Your task to perform on an android device: set default search engine in the chrome app Image 0: 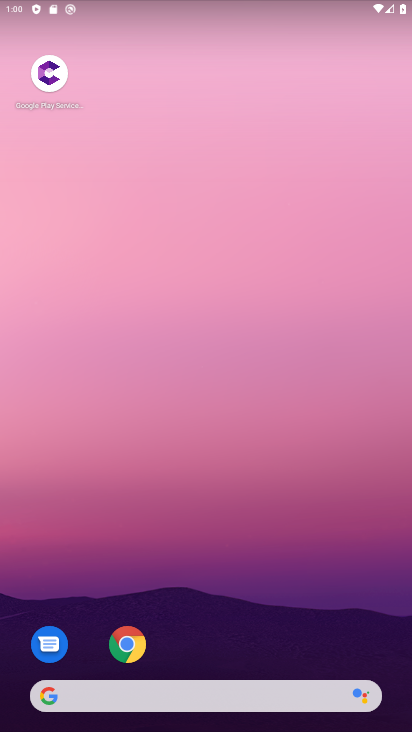
Step 0: click (128, 654)
Your task to perform on an android device: set default search engine in the chrome app Image 1: 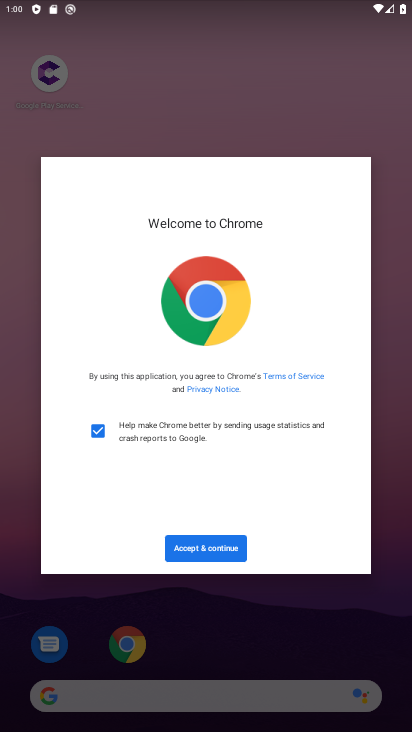
Step 1: click (240, 558)
Your task to perform on an android device: set default search engine in the chrome app Image 2: 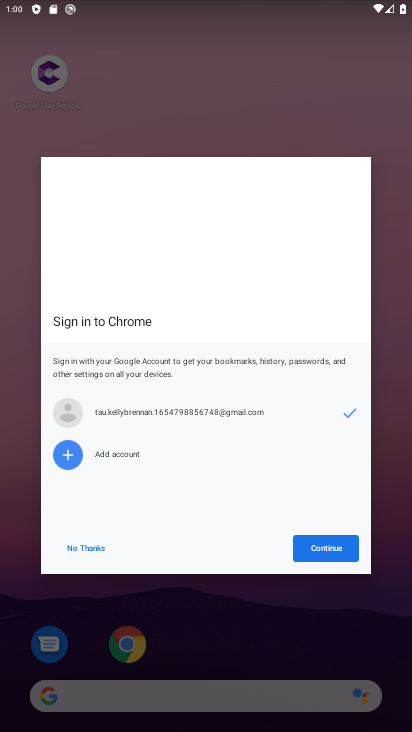
Step 2: click (335, 551)
Your task to perform on an android device: set default search engine in the chrome app Image 3: 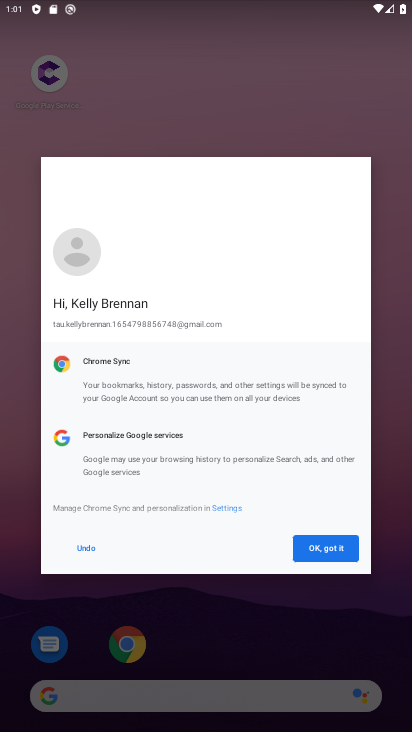
Step 3: click (339, 552)
Your task to perform on an android device: set default search engine in the chrome app Image 4: 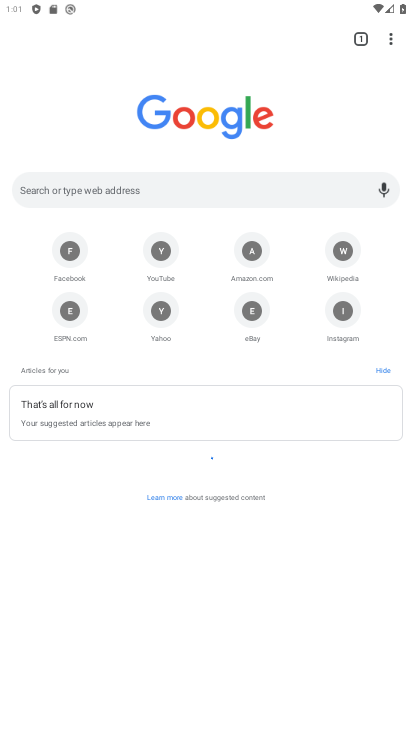
Step 4: click (397, 35)
Your task to perform on an android device: set default search engine in the chrome app Image 5: 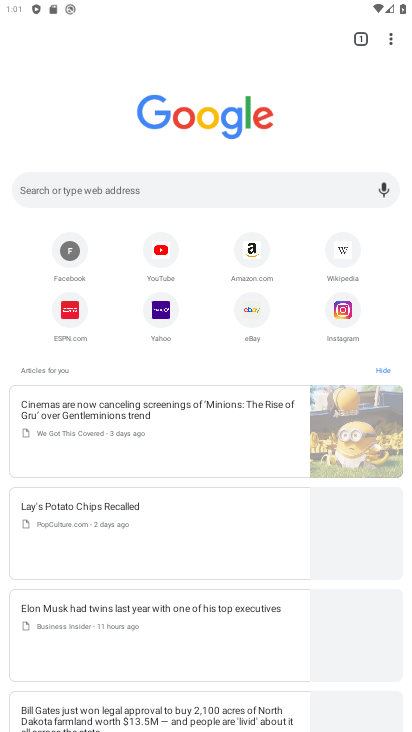
Step 5: drag from (395, 37) to (298, 324)
Your task to perform on an android device: set default search engine in the chrome app Image 6: 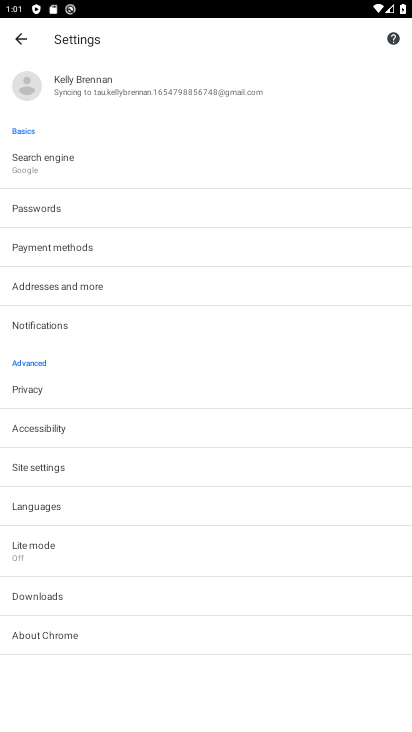
Step 6: click (77, 172)
Your task to perform on an android device: set default search engine in the chrome app Image 7: 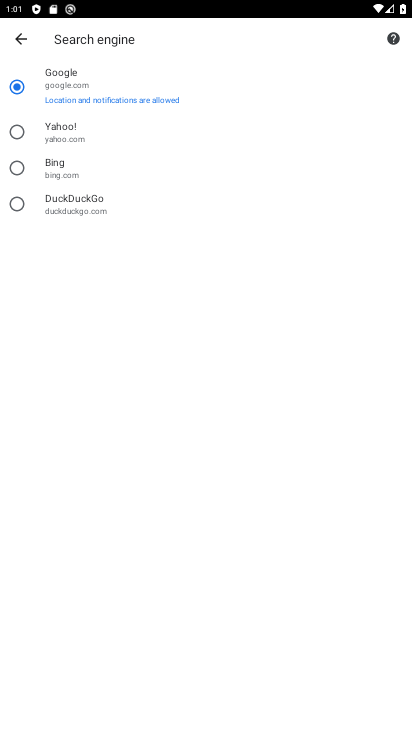
Step 7: click (87, 129)
Your task to perform on an android device: set default search engine in the chrome app Image 8: 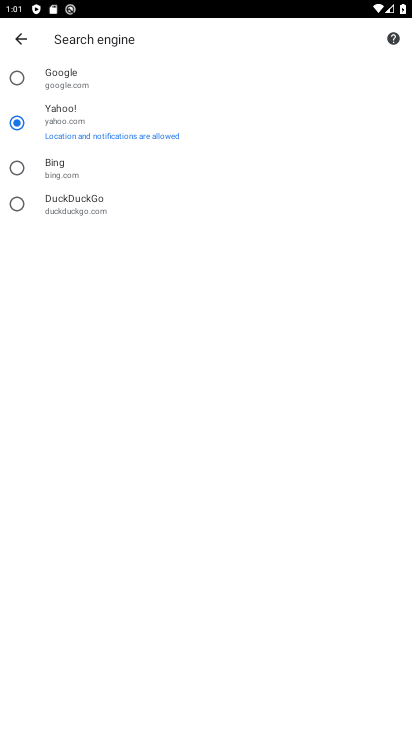
Step 8: task complete